Your task to perform on an android device: Open Wikipedia Image 0: 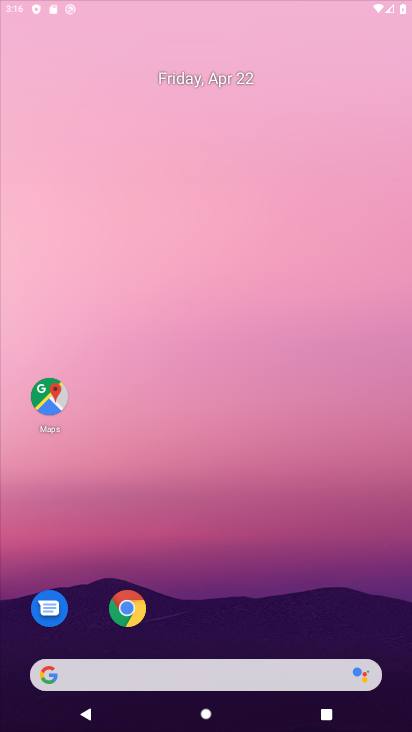
Step 0: click (249, 0)
Your task to perform on an android device: Open Wikipedia Image 1: 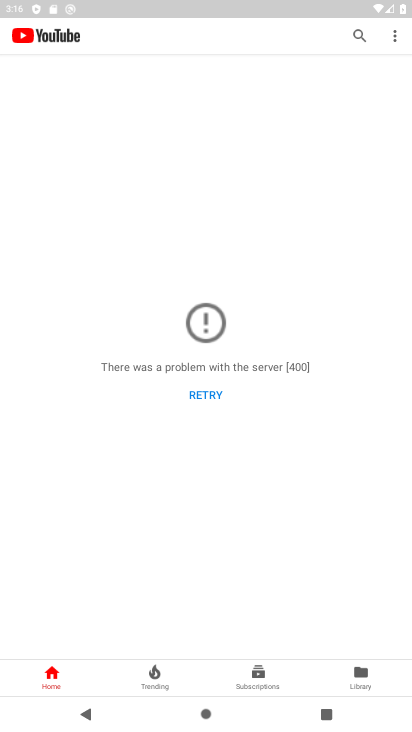
Step 1: press home button
Your task to perform on an android device: Open Wikipedia Image 2: 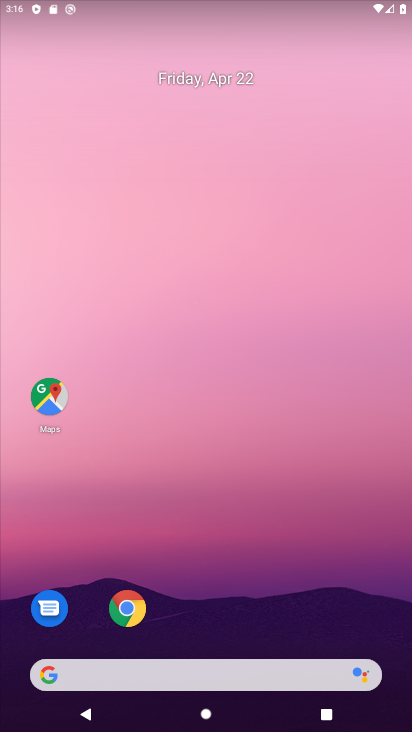
Step 2: click (130, 609)
Your task to perform on an android device: Open Wikipedia Image 3: 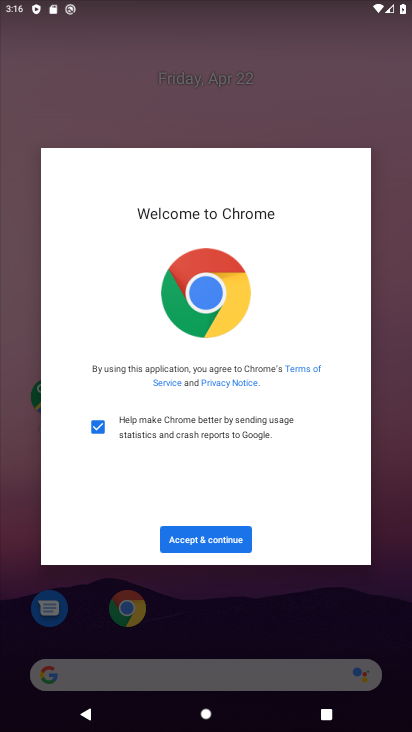
Step 3: click (190, 533)
Your task to perform on an android device: Open Wikipedia Image 4: 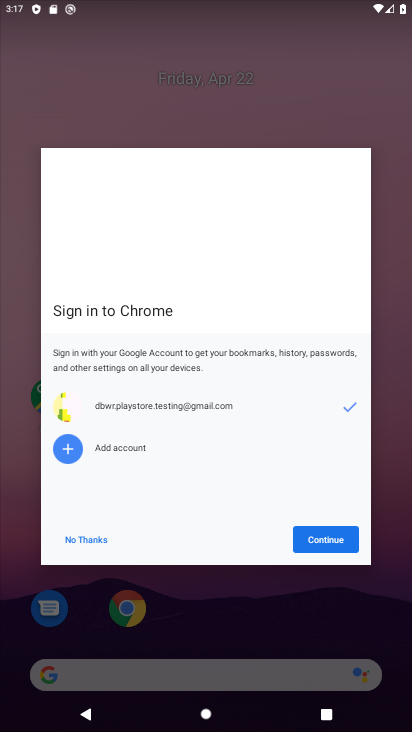
Step 4: click (351, 535)
Your task to perform on an android device: Open Wikipedia Image 5: 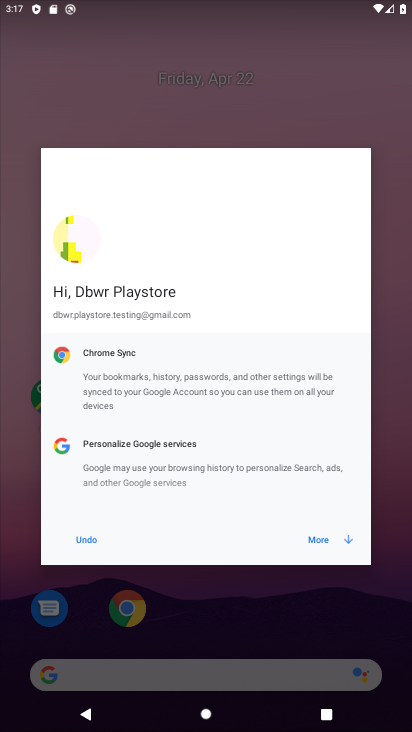
Step 5: click (327, 540)
Your task to perform on an android device: Open Wikipedia Image 6: 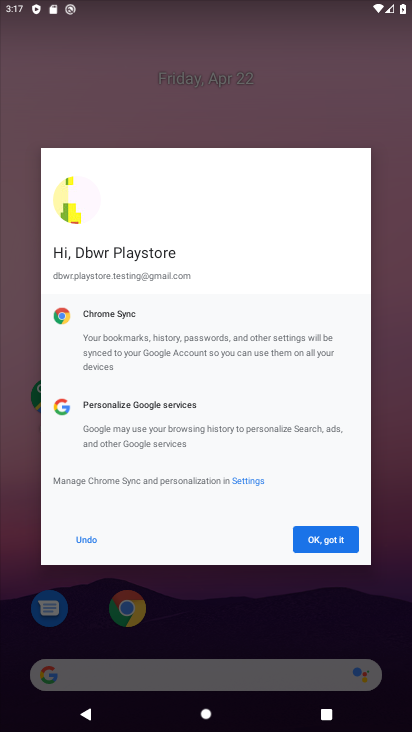
Step 6: click (327, 540)
Your task to perform on an android device: Open Wikipedia Image 7: 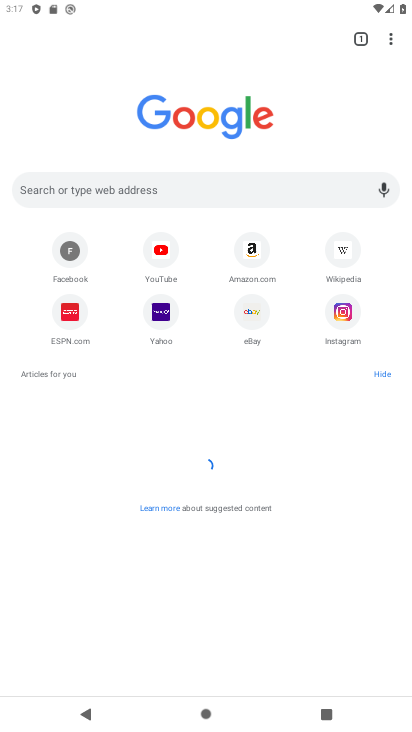
Step 7: click (343, 254)
Your task to perform on an android device: Open Wikipedia Image 8: 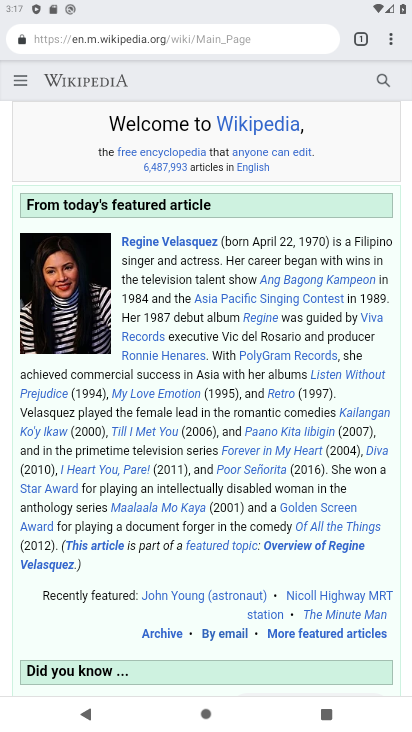
Step 8: task complete